Your task to perform on an android device: Search for flights from Sydney to Helsinki Image 0: 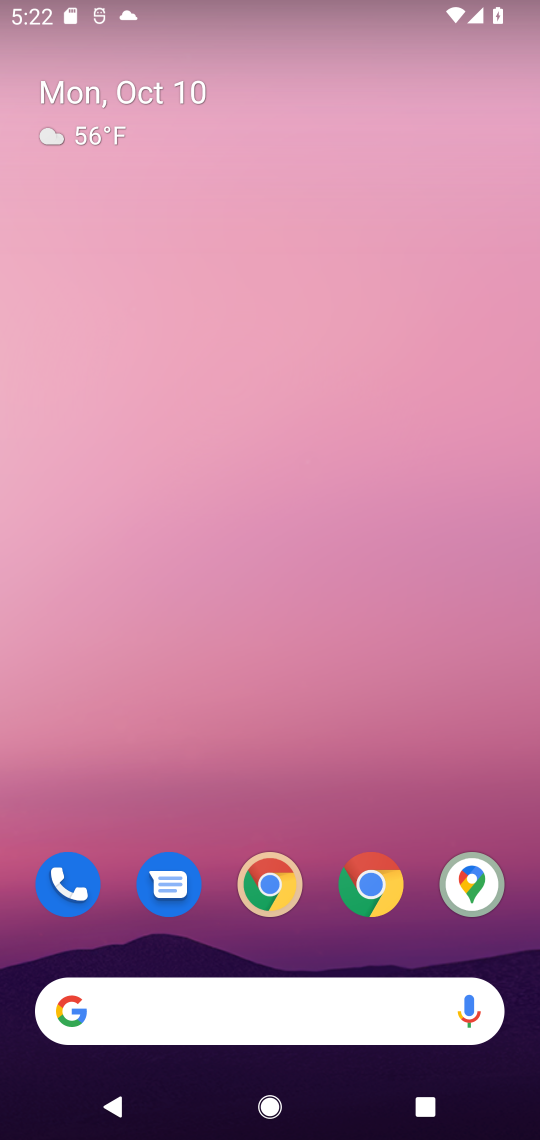
Step 0: click (368, 885)
Your task to perform on an android device: Search for flights from Sydney to Helsinki Image 1: 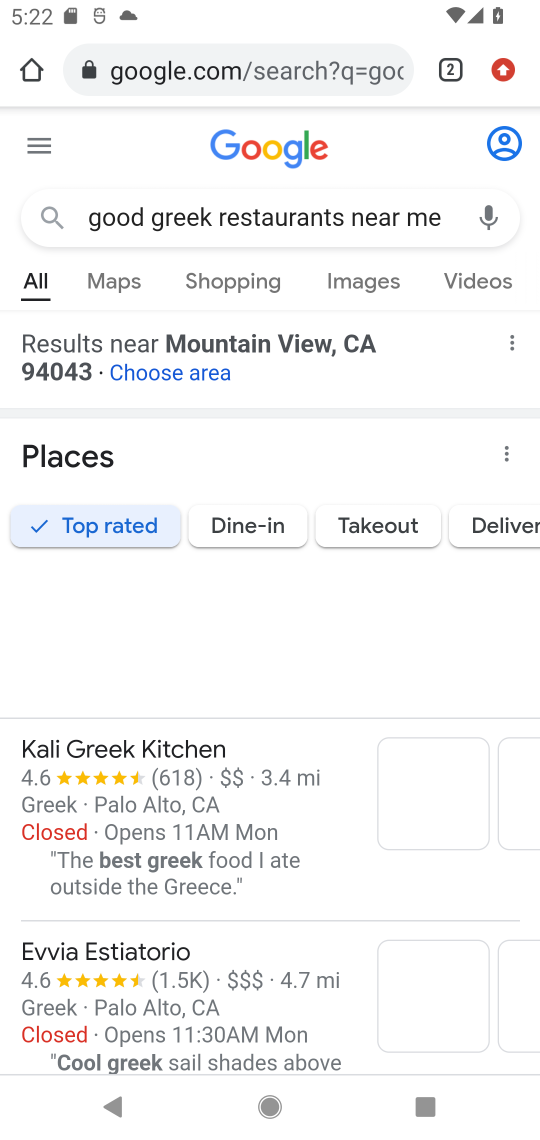
Step 1: click (209, 71)
Your task to perform on an android device: Search for flights from Sydney to Helsinki Image 2: 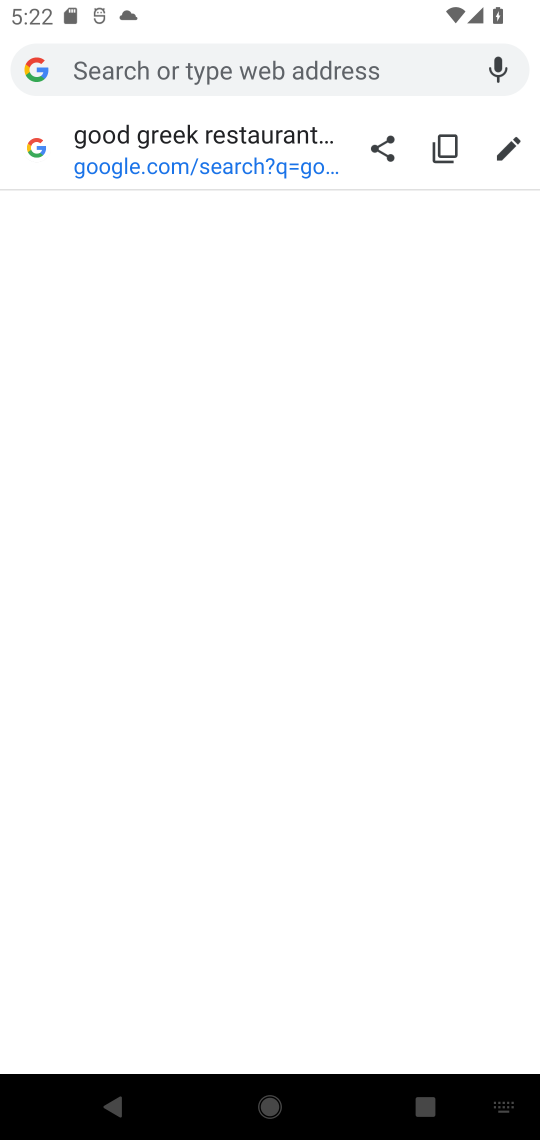
Step 2: type "flights from Sydney to Helsinki"
Your task to perform on an android device: Search for flights from Sydney to Helsinki Image 3: 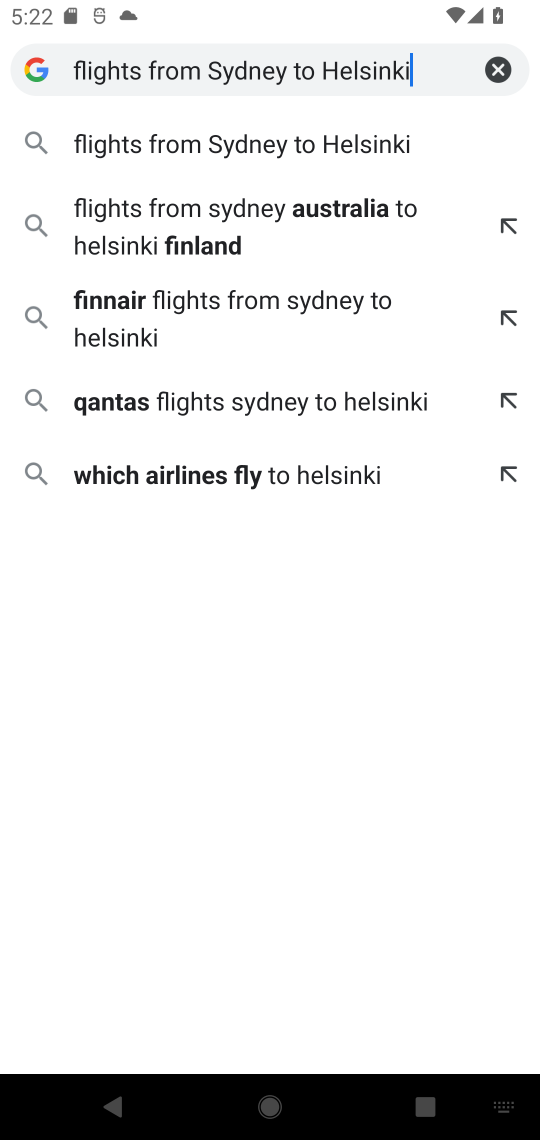
Step 3: click (228, 155)
Your task to perform on an android device: Search for flights from Sydney to Helsinki Image 4: 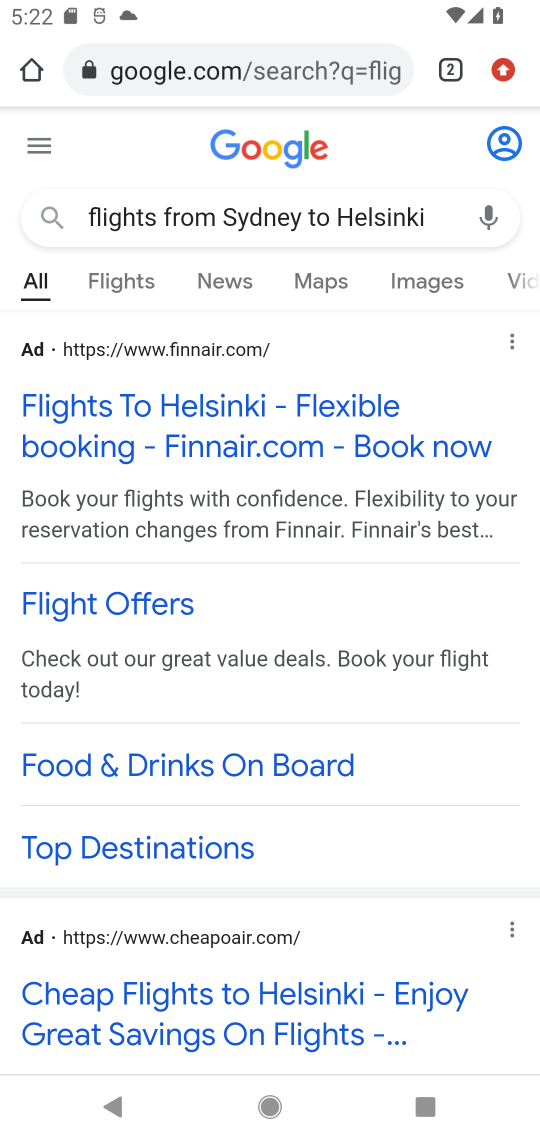
Step 4: click (143, 439)
Your task to perform on an android device: Search for flights from Sydney to Helsinki Image 5: 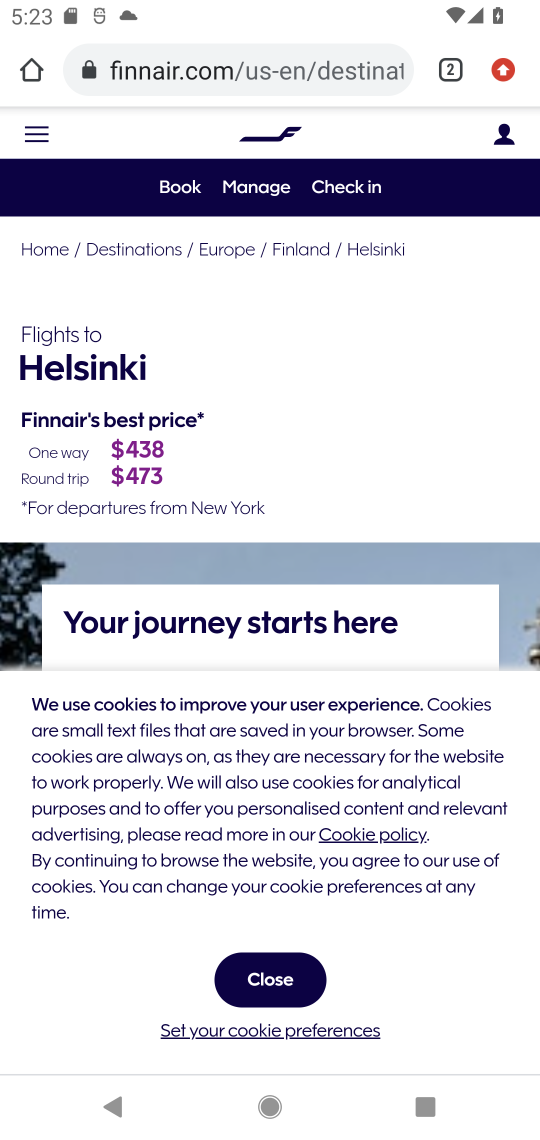
Step 5: task complete